Your task to perform on an android device: Go to CNN.com Image 0: 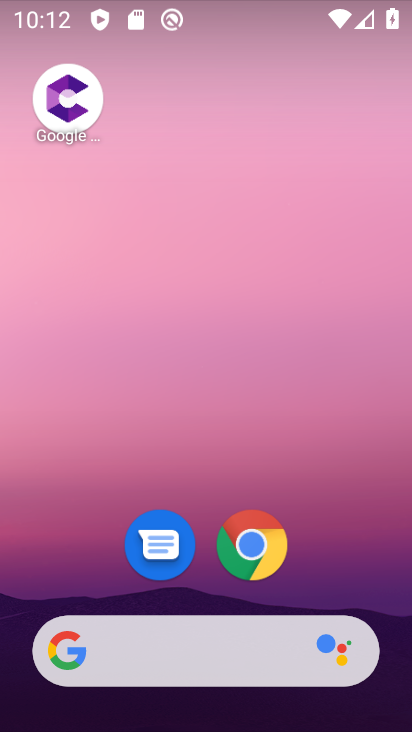
Step 0: click (271, 546)
Your task to perform on an android device: Go to CNN.com Image 1: 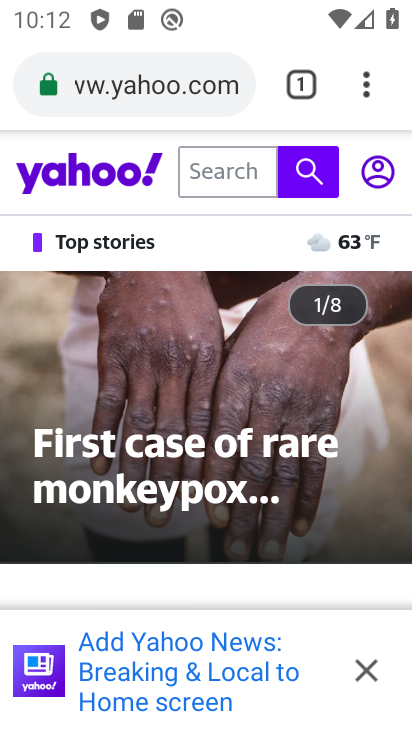
Step 1: click (294, 88)
Your task to perform on an android device: Go to CNN.com Image 2: 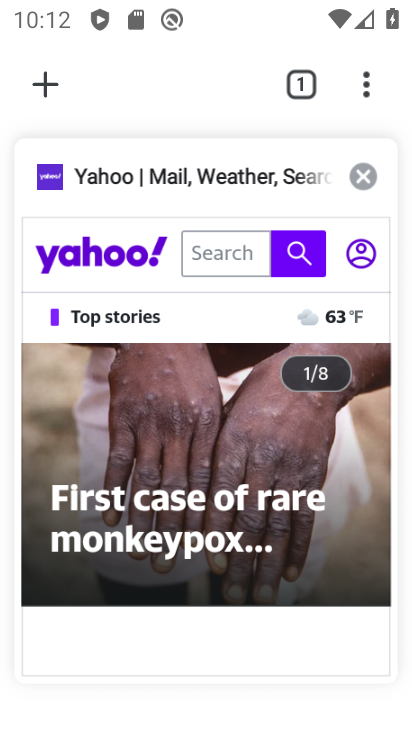
Step 2: click (37, 97)
Your task to perform on an android device: Go to CNN.com Image 3: 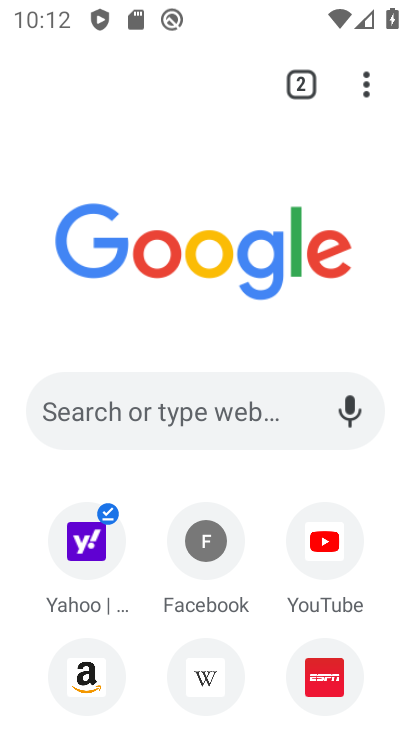
Step 3: click (188, 401)
Your task to perform on an android device: Go to CNN.com Image 4: 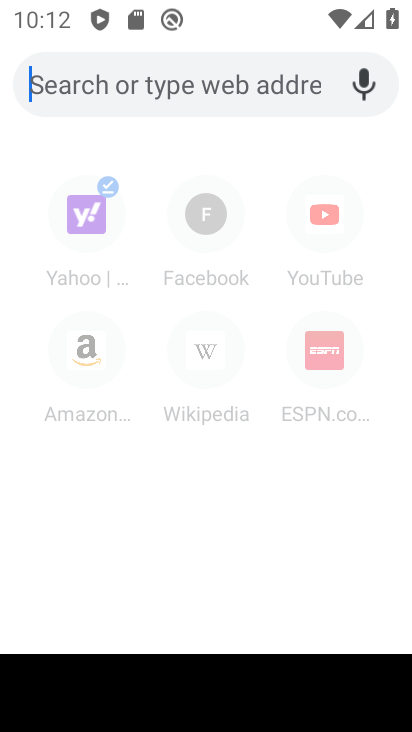
Step 4: type "CNN.com"
Your task to perform on an android device: Go to CNN.com Image 5: 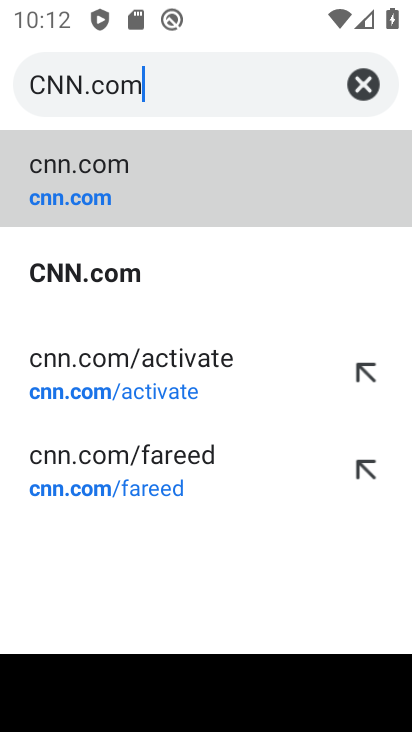
Step 5: click (211, 172)
Your task to perform on an android device: Go to CNN.com Image 6: 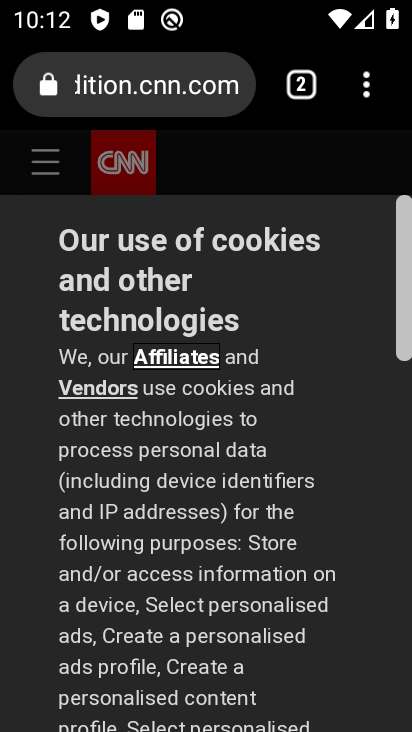
Step 6: task complete